Your task to perform on an android device: find which apps use the phone's location Image 0: 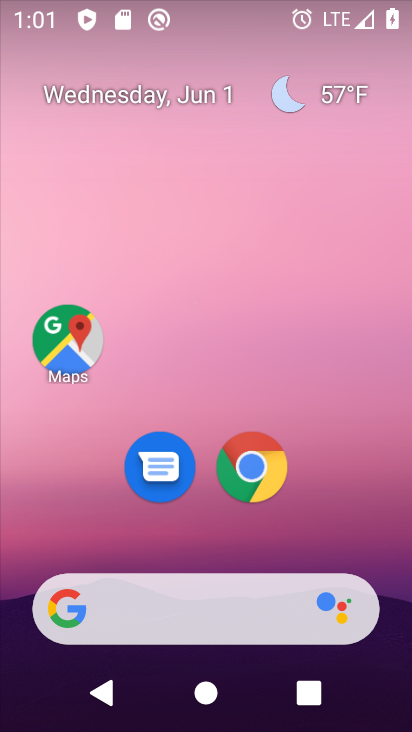
Step 0: drag from (375, 533) to (382, 174)
Your task to perform on an android device: find which apps use the phone's location Image 1: 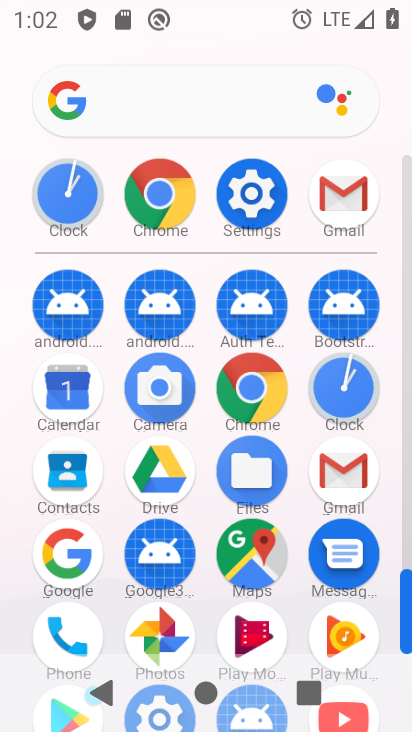
Step 1: click (242, 198)
Your task to perform on an android device: find which apps use the phone's location Image 2: 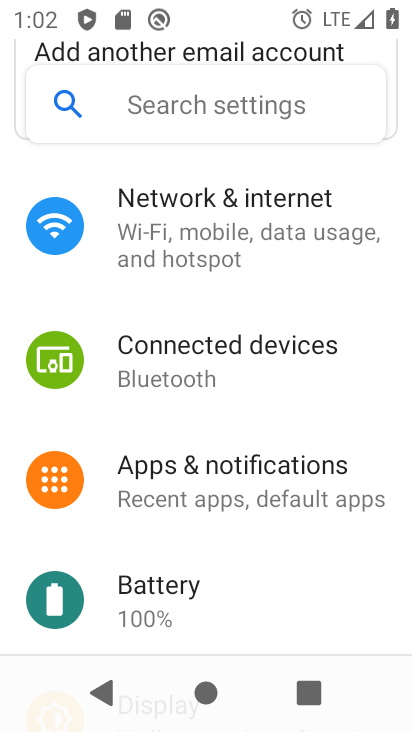
Step 2: drag from (376, 297) to (367, 483)
Your task to perform on an android device: find which apps use the phone's location Image 3: 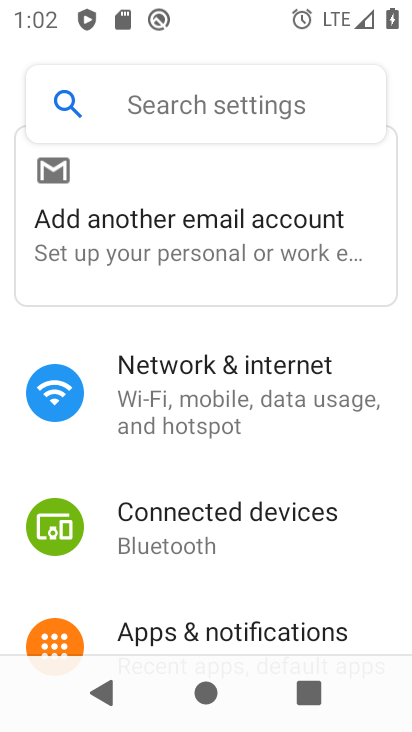
Step 3: drag from (369, 212) to (372, 481)
Your task to perform on an android device: find which apps use the phone's location Image 4: 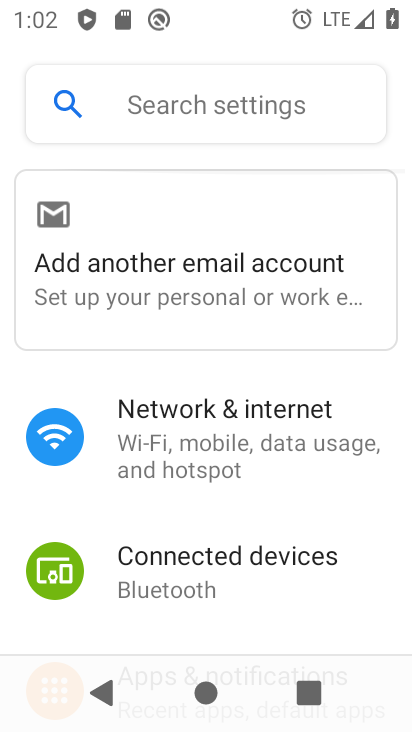
Step 4: drag from (365, 516) to (360, 316)
Your task to perform on an android device: find which apps use the phone's location Image 5: 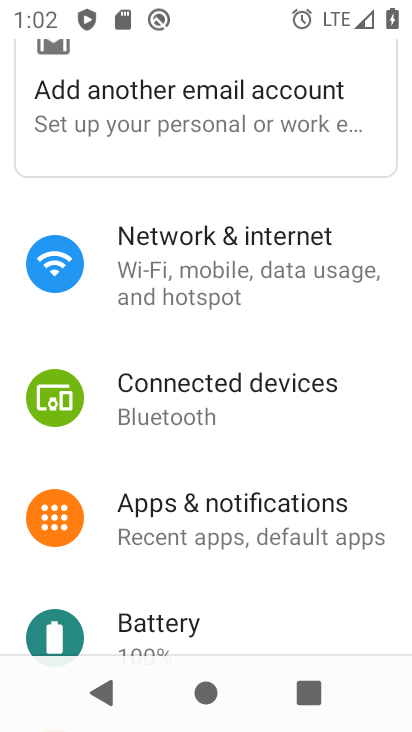
Step 5: drag from (343, 494) to (365, 342)
Your task to perform on an android device: find which apps use the phone's location Image 6: 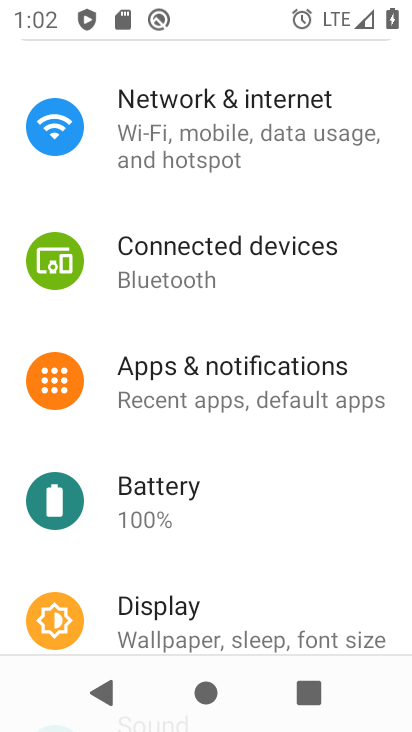
Step 6: drag from (369, 507) to (378, 350)
Your task to perform on an android device: find which apps use the phone's location Image 7: 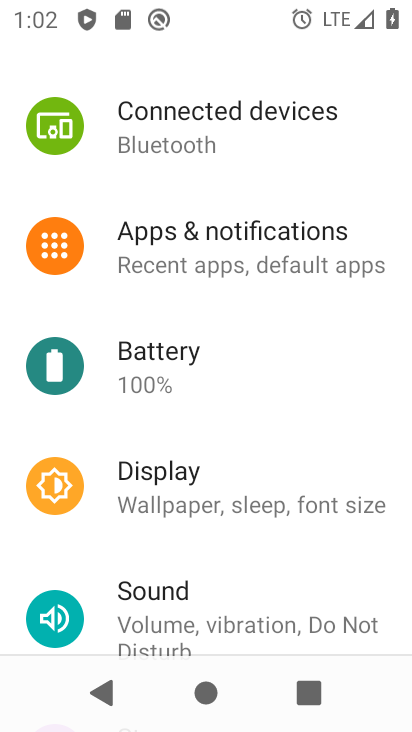
Step 7: drag from (335, 557) to (350, 318)
Your task to perform on an android device: find which apps use the phone's location Image 8: 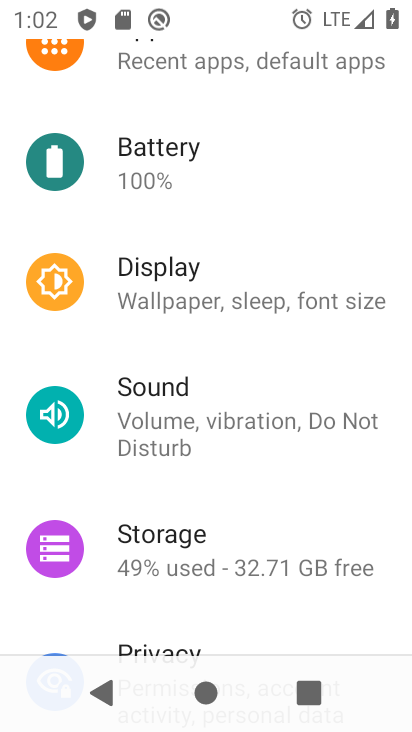
Step 8: drag from (357, 595) to (363, 367)
Your task to perform on an android device: find which apps use the phone's location Image 9: 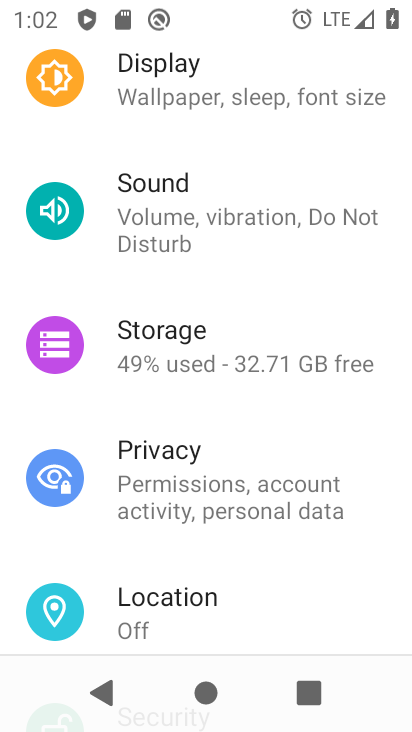
Step 9: drag from (339, 596) to (352, 426)
Your task to perform on an android device: find which apps use the phone's location Image 10: 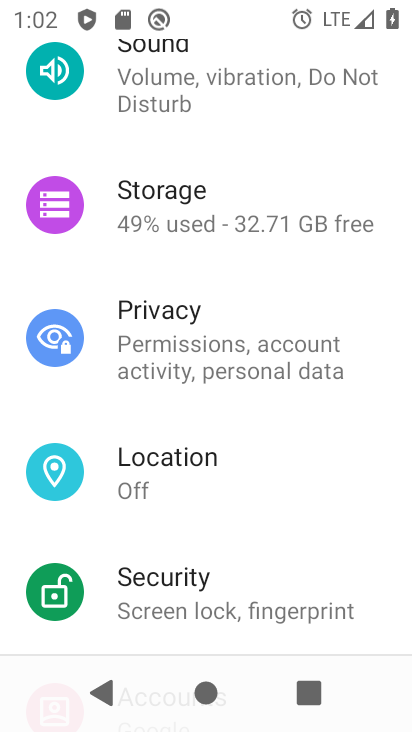
Step 10: click (217, 480)
Your task to perform on an android device: find which apps use the phone's location Image 11: 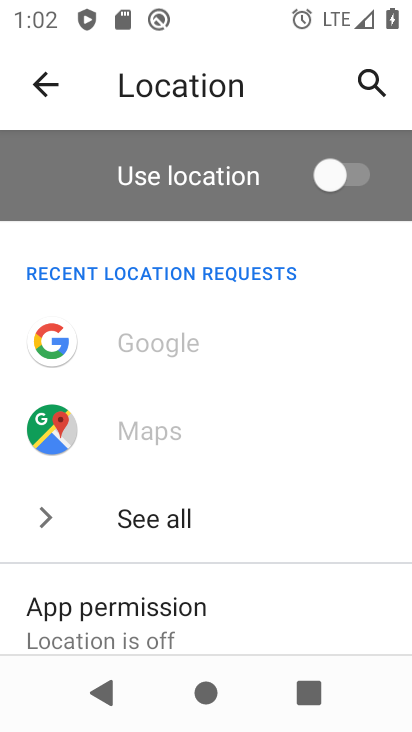
Step 11: drag from (342, 571) to (351, 337)
Your task to perform on an android device: find which apps use the phone's location Image 12: 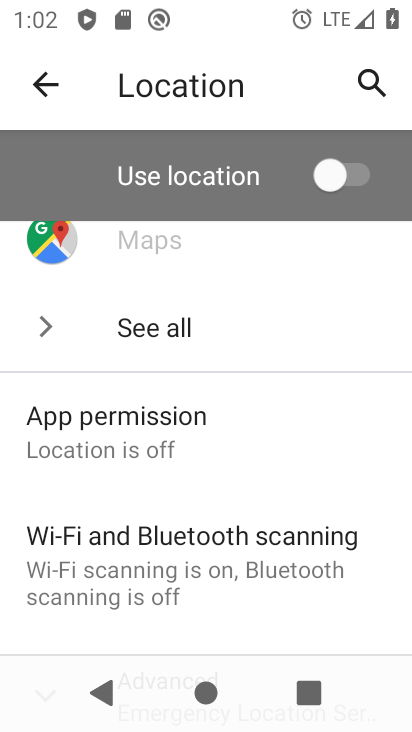
Step 12: drag from (331, 612) to (330, 403)
Your task to perform on an android device: find which apps use the phone's location Image 13: 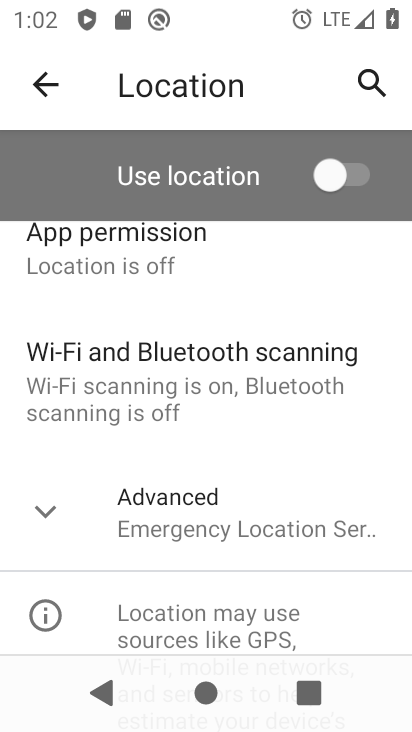
Step 13: drag from (303, 281) to (310, 434)
Your task to perform on an android device: find which apps use the phone's location Image 14: 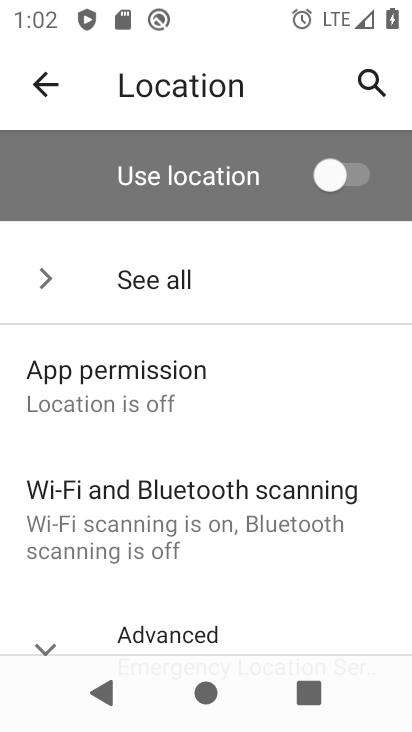
Step 14: click (183, 387)
Your task to perform on an android device: find which apps use the phone's location Image 15: 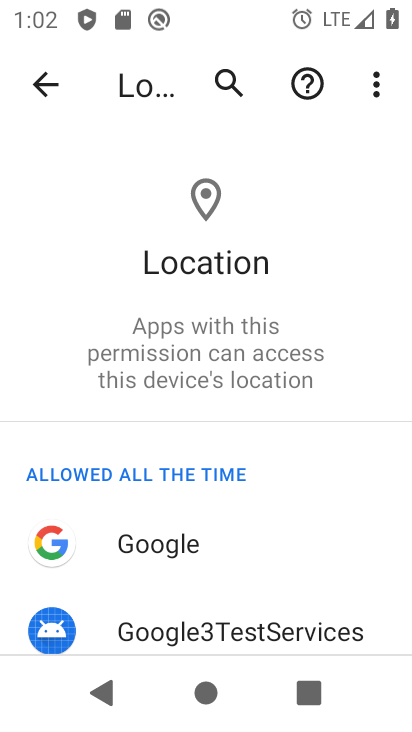
Step 15: drag from (311, 526) to (320, 318)
Your task to perform on an android device: find which apps use the phone's location Image 16: 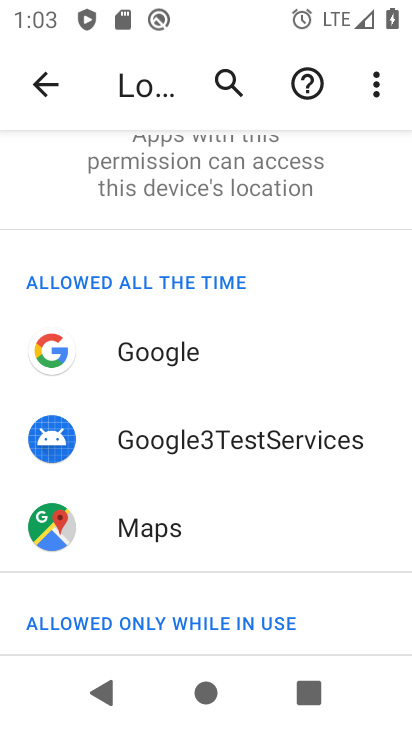
Step 16: drag from (323, 516) to (321, 308)
Your task to perform on an android device: find which apps use the phone's location Image 17: 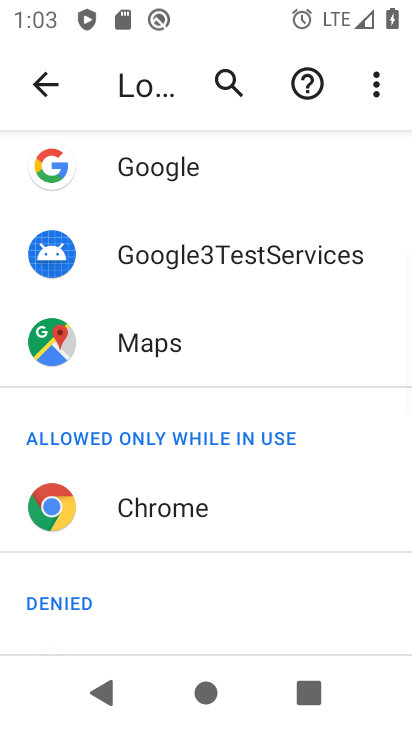
Step 17: drag from (331, 546) to (344, 359)
Your task to perform on an android device: find which apps use the phone's location Image 18: 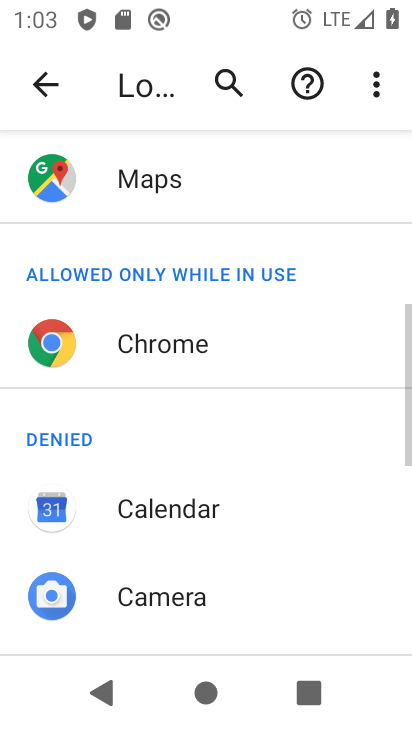
Step 18: drag from (334, 563) to (343, 345)
Your task to perform on an android device: find which apps use the phone's location Image 19: 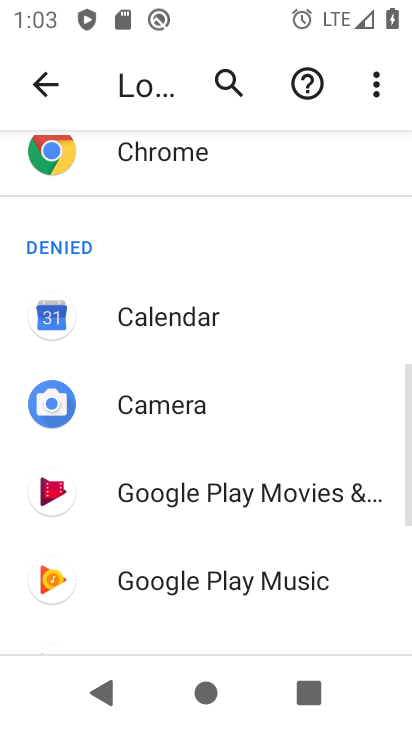
Step 19: drag from (351, 579) to (352, 324)
Your task to perform on an android device: find which apps use the phone's location Image 20: 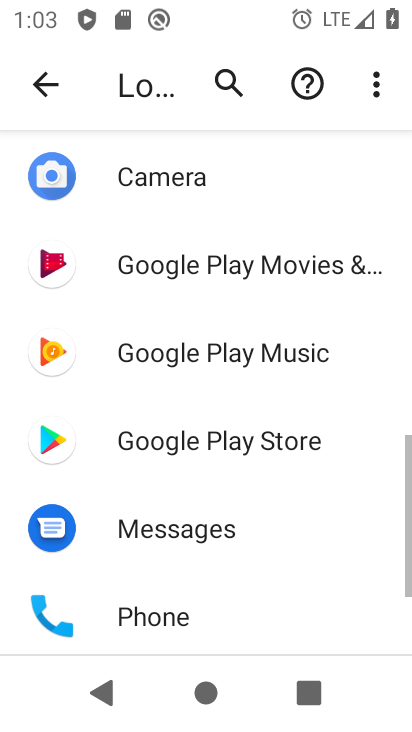
Step 20: drag from (358, 547) to (359, 310)
Your task to perform on an android device: find which apps use the phone's location Image 21: 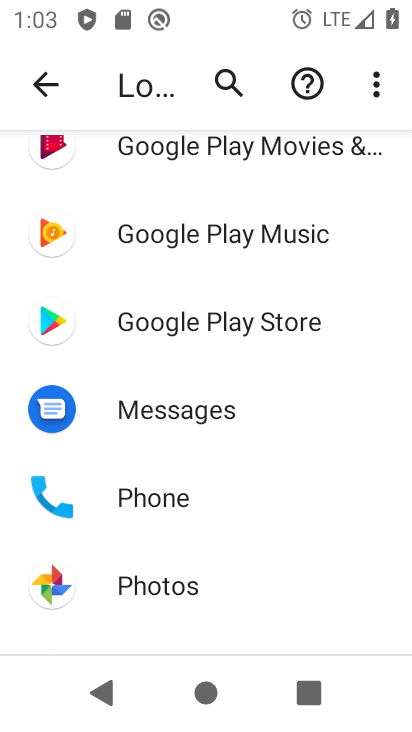
Step 21: click (184, 605)
Your task to perform on an android device: find which apps use the phone's location Image 22: 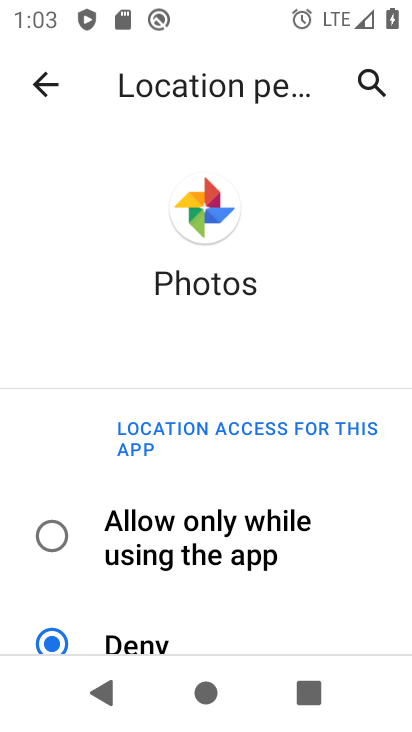
Step 22: click (66, 534)
Your task to perform on an android device: find which apps use the phone's location Image 23: 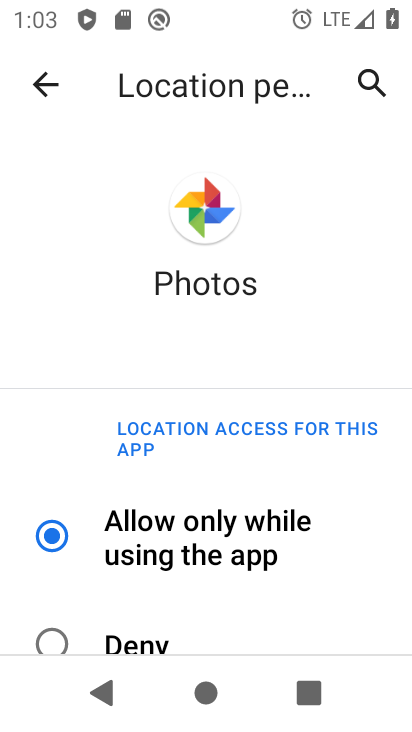
Step 23: task complete